Your task to perform on an android device: open a new tab in the chrome app Image 0: 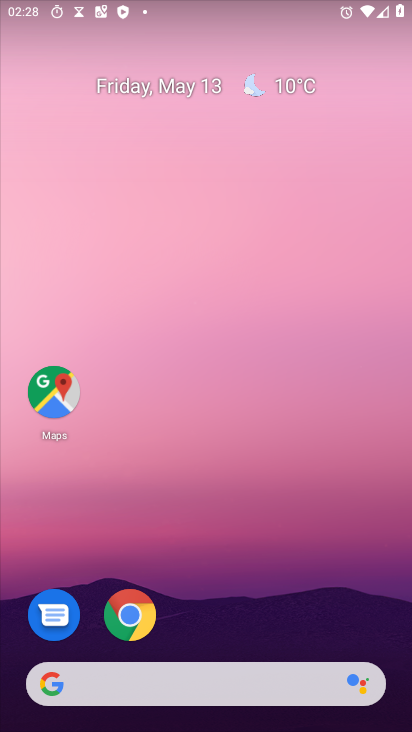
Step 0: click (139, 609)
Your task to perform on an android device: open a new tab in the chrome app Image 1: 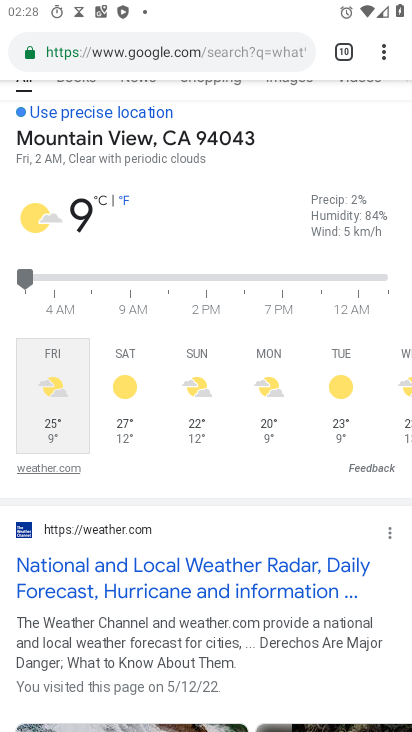
Step 1: click (385, 52)
Your task to perform on an android device: open a new tab in the chrome app Image 2: 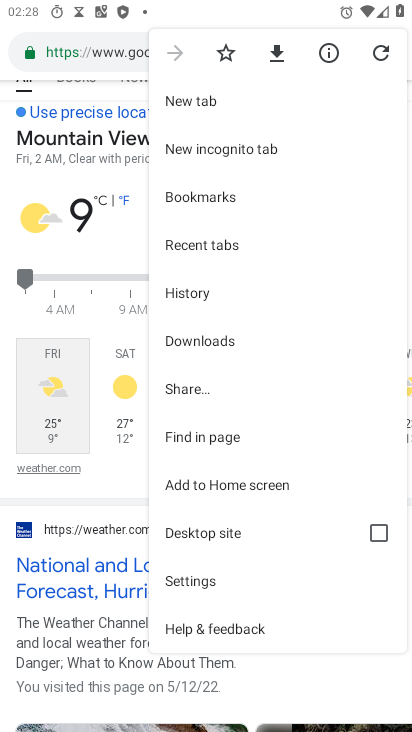
Step 2: click (177, 100)
Your task to perform on an android device: open a new tab in the chrome app Image 3: 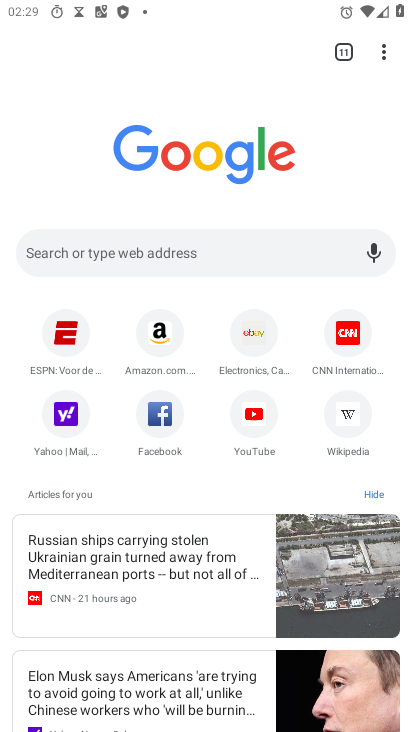
Step 3: task complete